Your task to perform on an android device: turn off picture-in-picture Image 0: 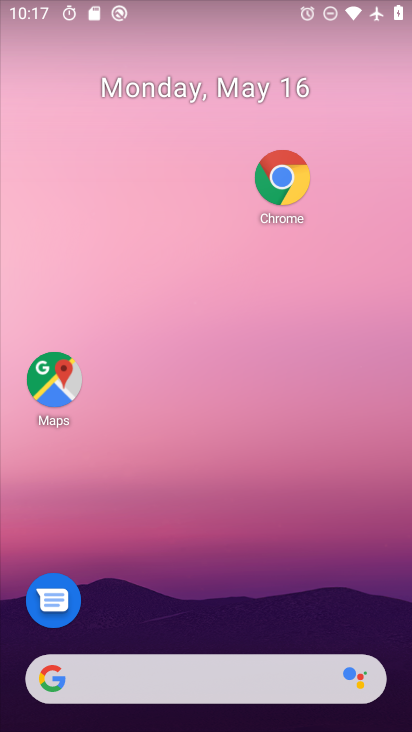
Step 0: press home button
Your task to perform on an android device: turn off picture-in-picture Image 1: 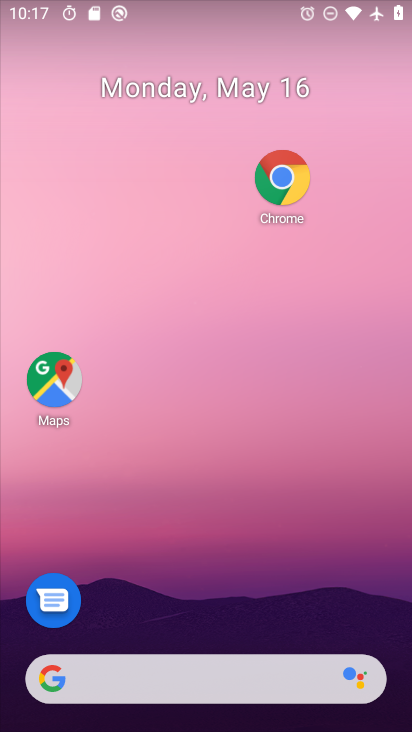
Step 1: click (281, 196)
Your task to perform on an android device: turn off picture-in-picture Image 2: 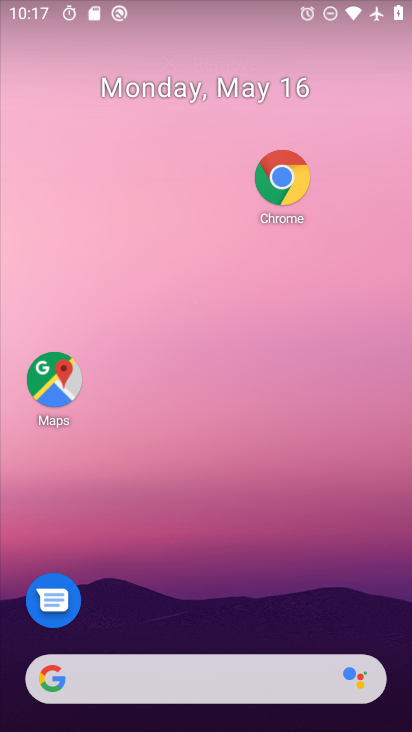
Step 2: click (233, 373)
Your task to perform on an android device: turn off picture-in-picture Image 3: 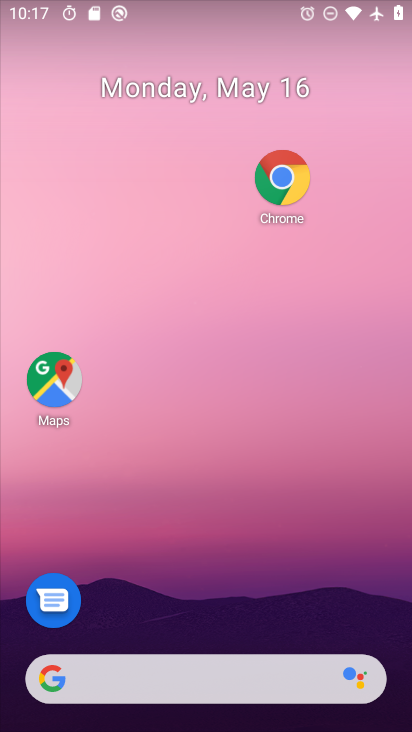
Step 3: drag from (276, 197) to (235, 270)
Your task to perform on an android device: turn off picture-in-picture Image 4: 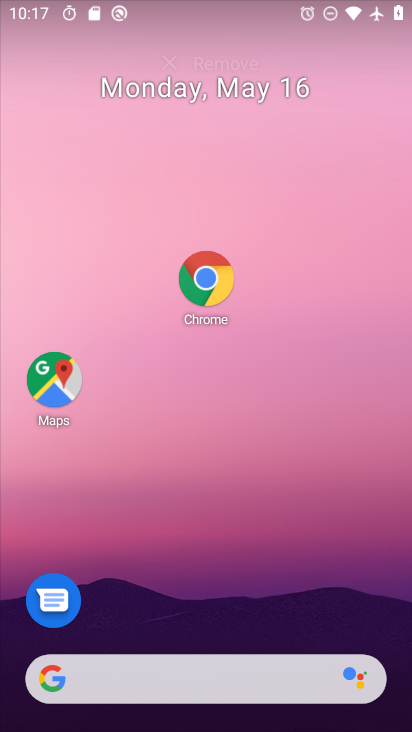
Step 4: click (244, 361)
Your task to perform on an android device: turn off picture-in-picture Image 5: 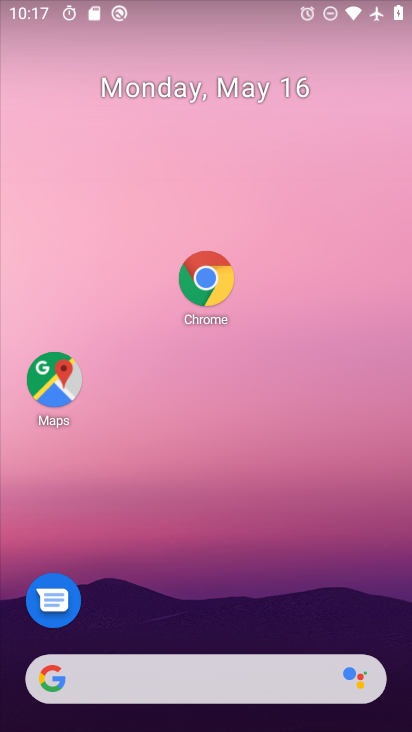
Step 5: click (216, 279)
Your task to perform on an android device: turn off picture-in-picture Image 6: 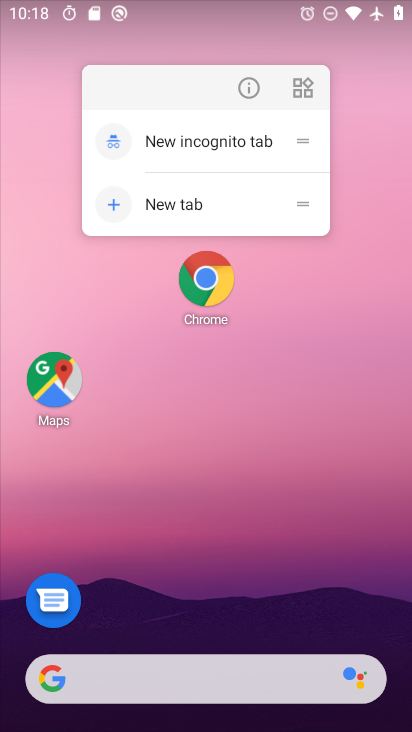
Step 6: click (239, 91)
Your task to perform on an android device: turn off picture-in-picture Image 7: 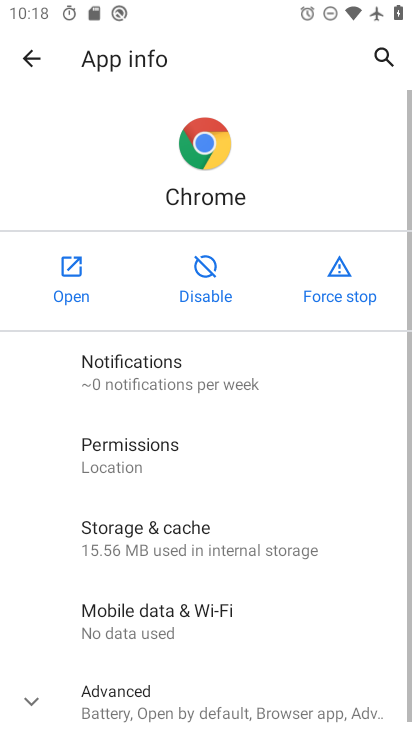
Step 7: drag from (255, 665) to (354, 286)
Your task to perform on an android device: turn off picture-in-picture Image 8: 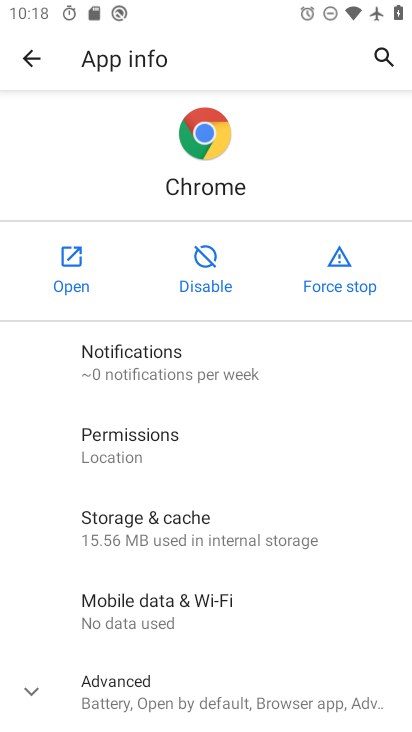
Step 8: click (137, 682)
Your task to perform on an android device: turn off picture-in-picture Image 9: 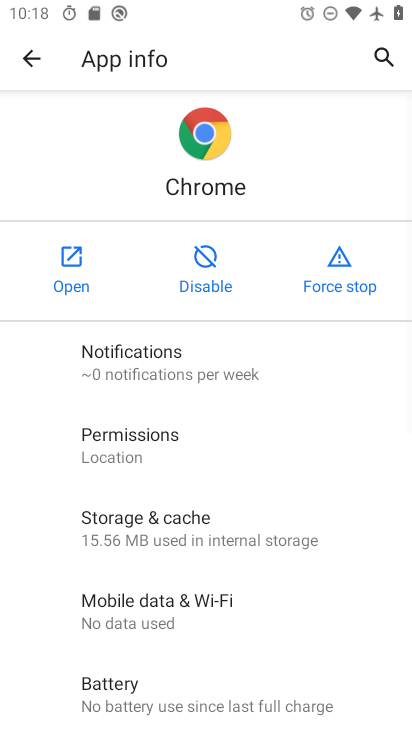
Step 9: drag from (250, 680) to (324, 168)
Your task to perform on an android device: turn off picture-in-picture Image 10: 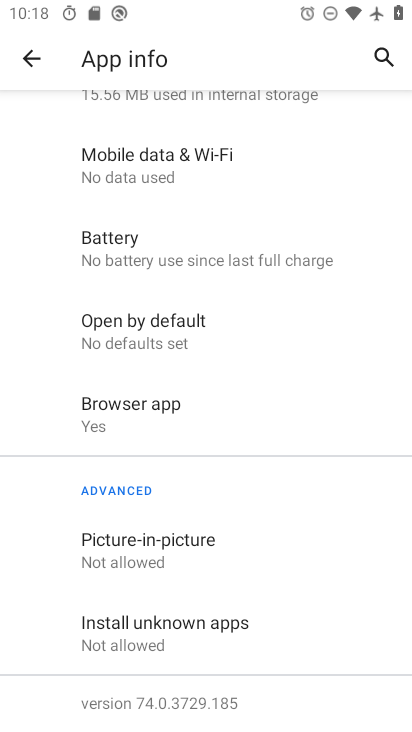
Step 10: click (135, 543)
Your task to perform on an android device: turn off picture-in-picture Image 11: 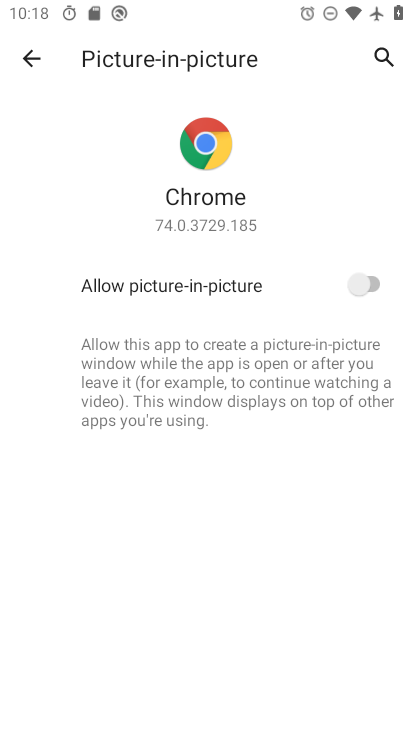
Step 11: task complete